Your task to perform on an android device: What is the recent news? Image 0: 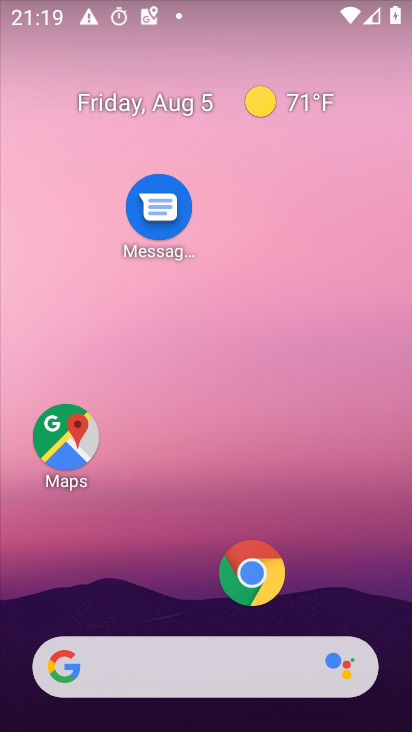
Step 0: press home button
Your task to perform on an android device: What is the recent news? Image 1: 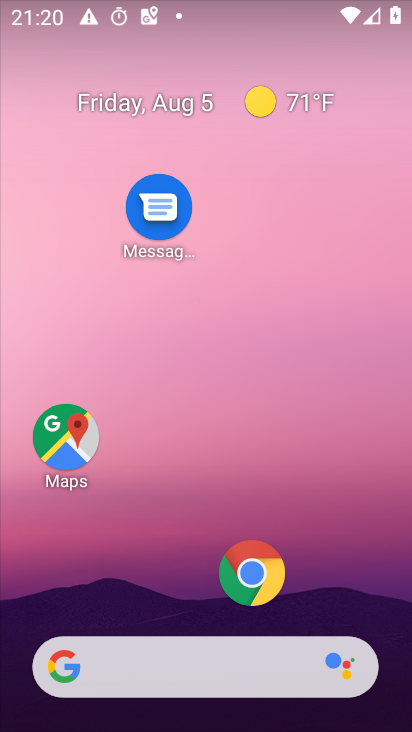
Step 1: task complete